Your task to perform on an android device: open a bookmark in the chrome app Image 0: 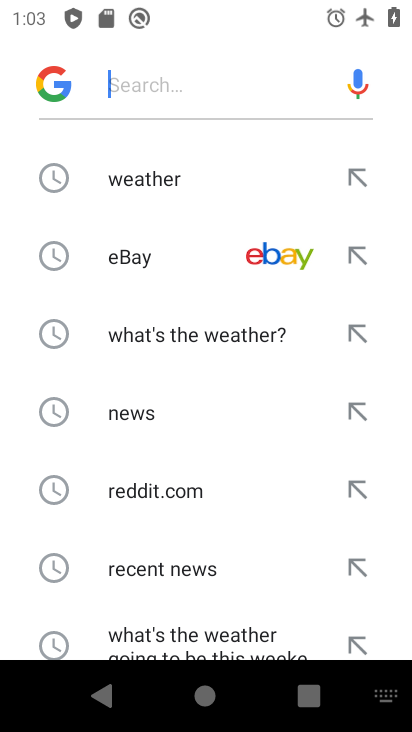
Step 0: press home button
Your task to perform on an android device: open a bookmark in the chrome app Image 1: 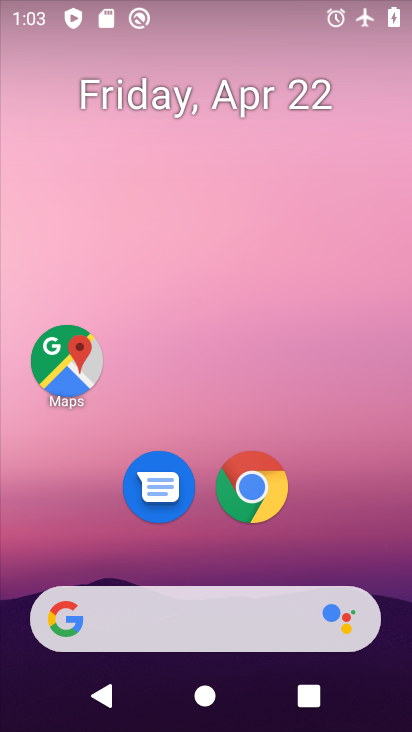
Step 1: click (271, 484)
Your task to perform on an android device: open a bookmark in the chrome app Image 2: 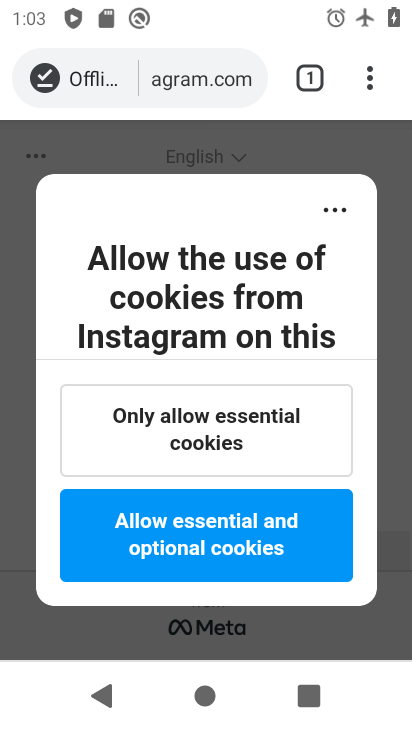
Step 2: drag from (368, 74) to (139, 377)
Your task to perform on an android device: open a bookmark in the chrome app Image 3: 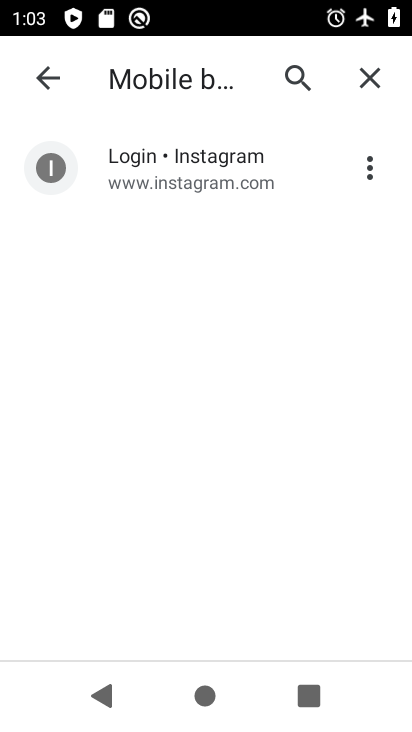
Step 3: click (199, 176)
Your task to perform on an android device: open a bookmark in the chrome app Image 4: 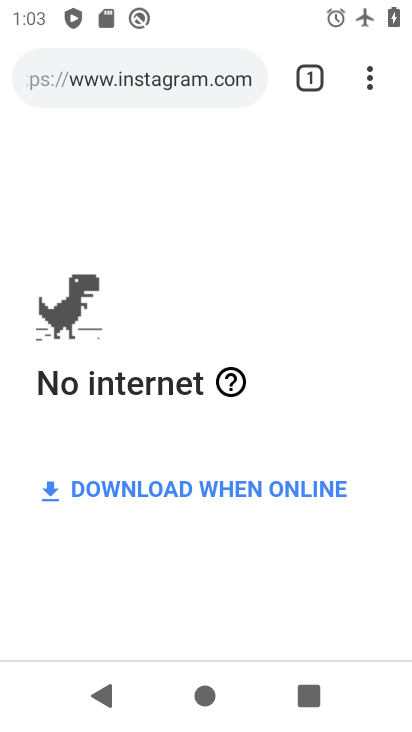
Step 4: task complete